Your task to perform on an android device: Go to battery settings Image 0: 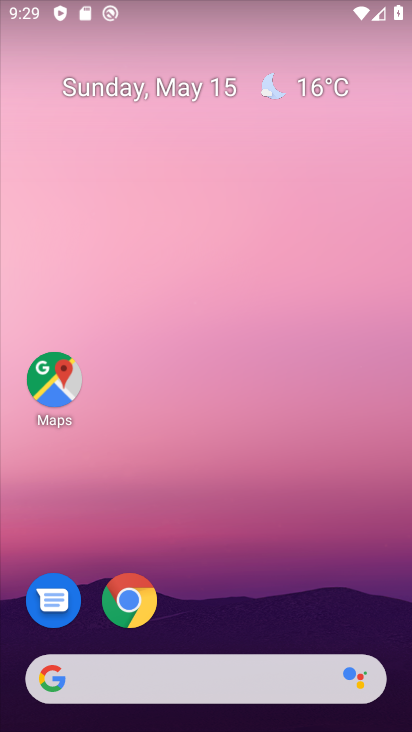
Step 0: drag from (210, 631) to (153, 24)
Your task to perform on an android device: Go to battery settings Image 1: 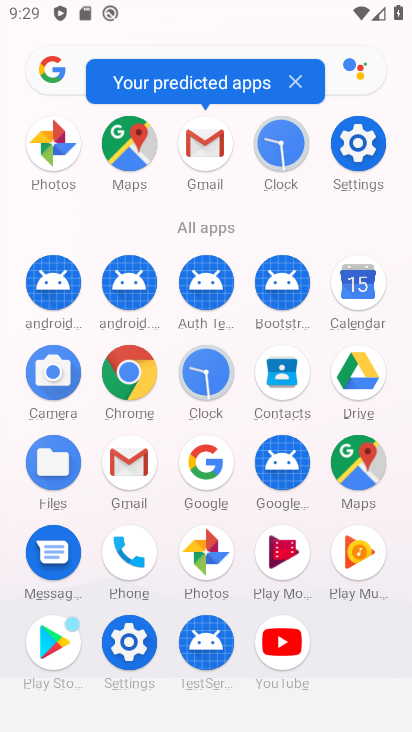
Step 1: click (347, 133)
Your task to perform on an android device: Go to battery settings Image 2: 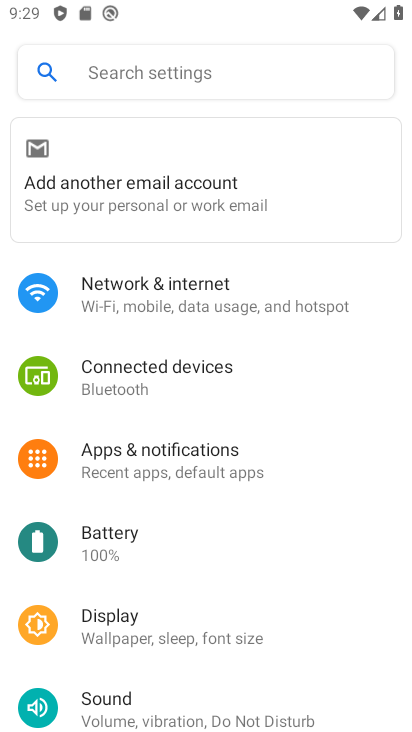
Step 2: click (170, 555)
Your task to perform on an android device: Go to battery settings Image 3: 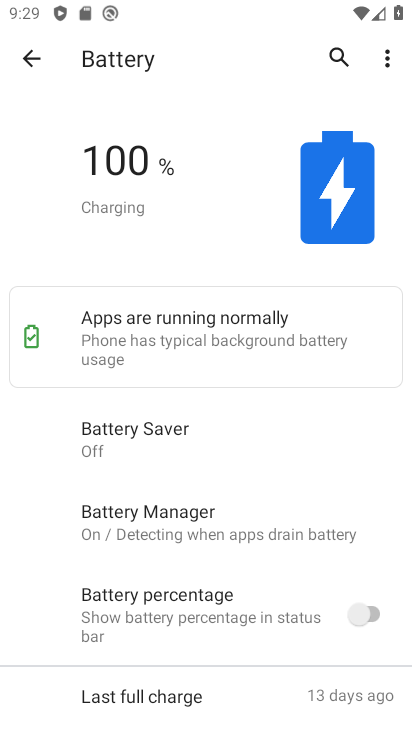
Step 3: task complete